Your task to perform on an android device: Go to settings Image 0: 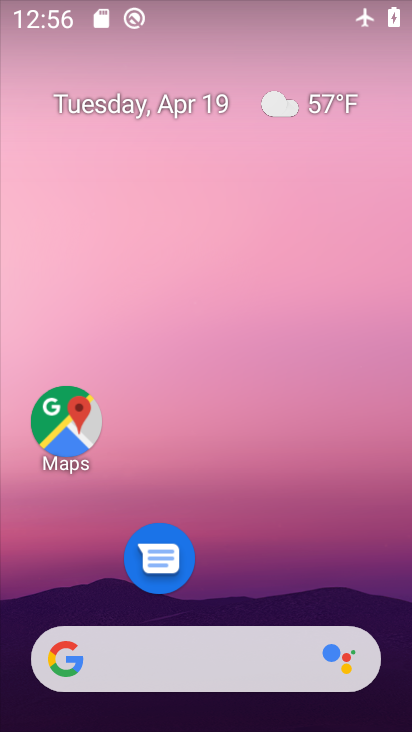
Step 0: drag from (263, 578) to (185, 179)
Your task to perform on an android device: Go to settings Image 1: 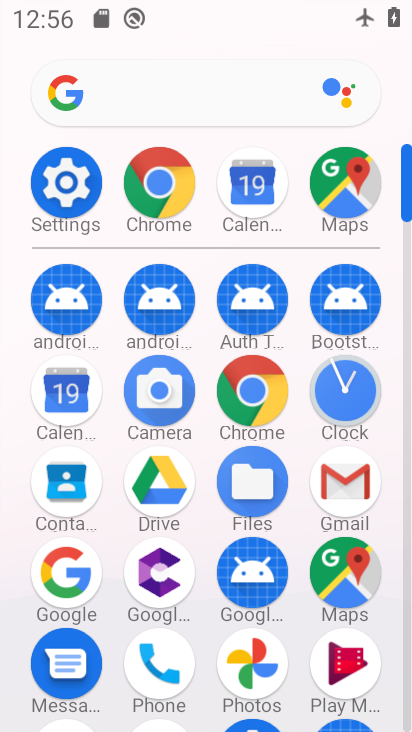
Step 1: click (54, 189)
Your task to perform on an android device: Go to settings Image 2: 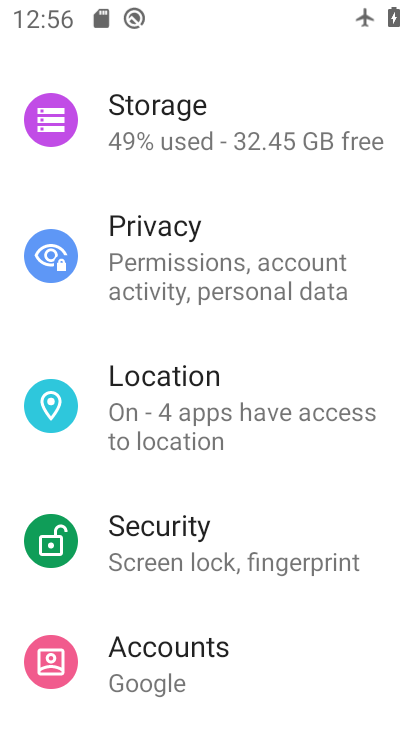
Step 2: task complete